Your task to perform on an android device: turn off notifications in google photos Image 0: 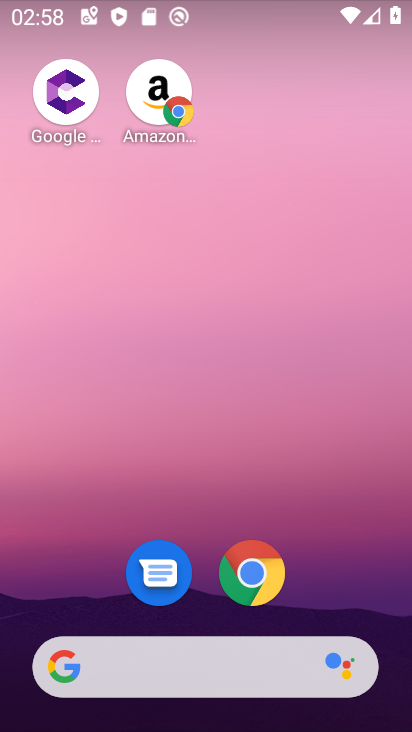
Step 0: drag from (323, 557) to (338, 15)
Your task to perform on an android device: turn off notifications in google photos Image 1: 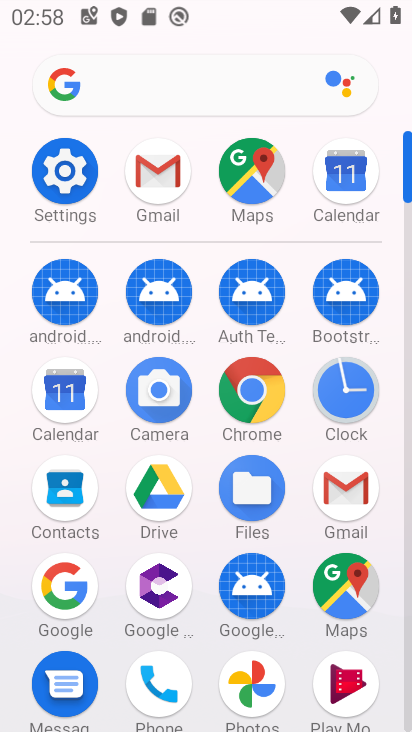
Step 1: drag from (206, 558) to (218, 234)
Your task to perform on an android device: turn off notifications in google photos Image 2: 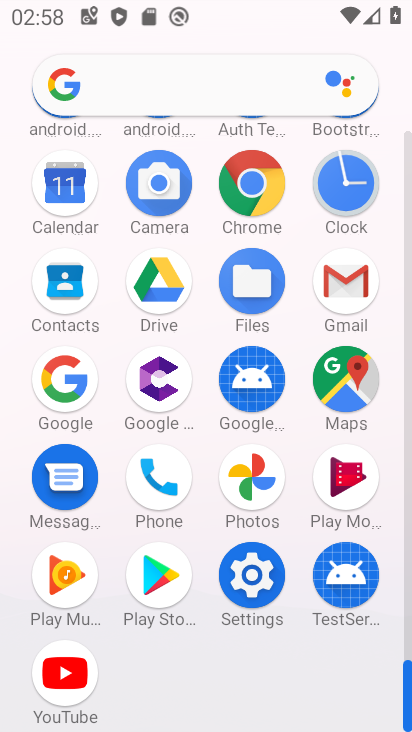
Step 2: click (253, 473)
Your task to perform on an android device: turn off notifications in google photos Image 3: 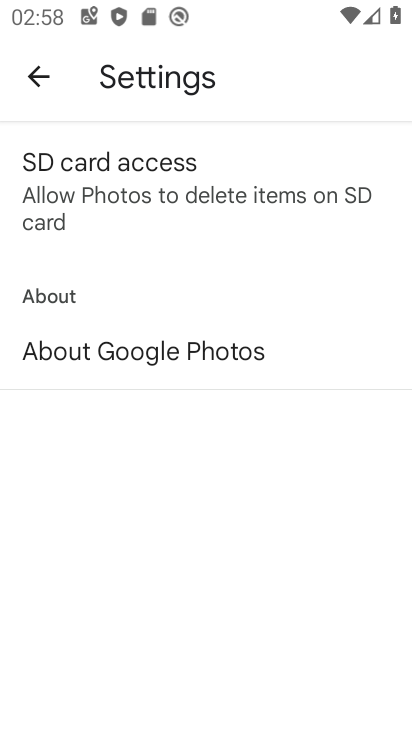
Step 3: press back button
Your task to perform on an android device: turn off notifications in google photos Image 4: 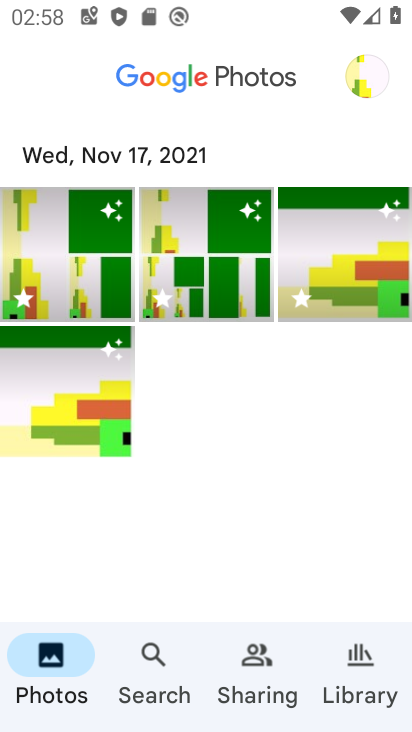
Step 4: click (375, 81)
Your task to perform on an android device: turn off notifications in google photos Image 5: 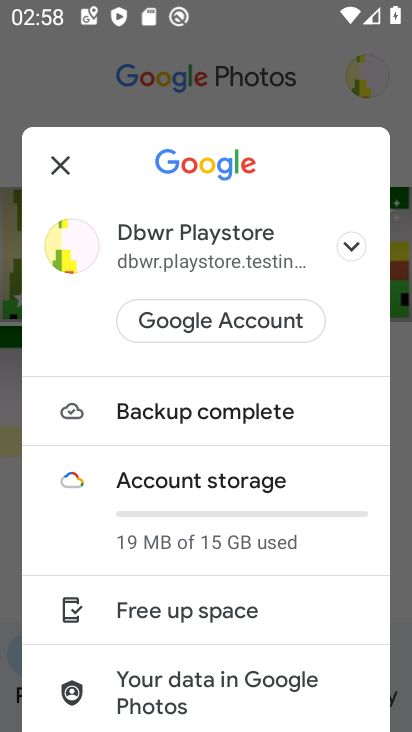
Step 5: drag from (276, 567) to (351, 307)
Your task to perform on an android device: turn off notifications in google photos Image 6: 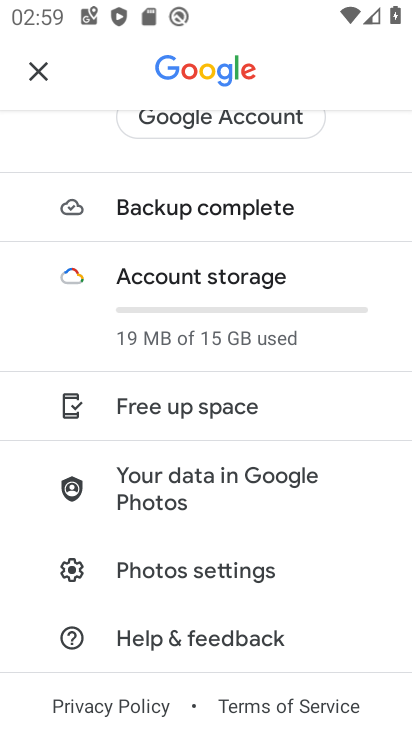
Step 6: click (221, 569)
Your task to perform on an android device: turn off notifications in google photos Image 7: 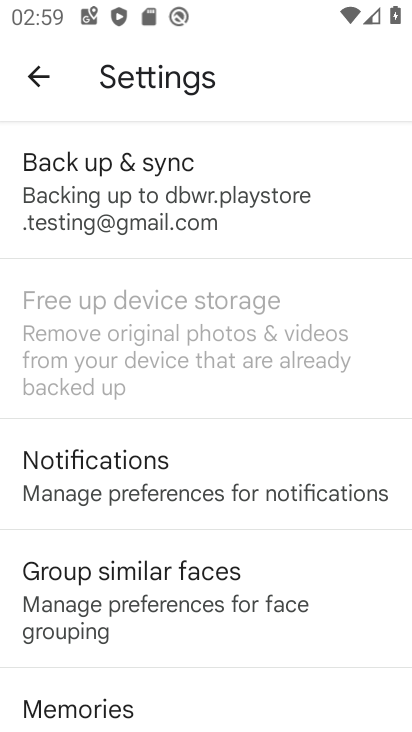
Step 7: click (195, 494)
Your task to perform on an android device: turn off notifications in google photos Image 8: 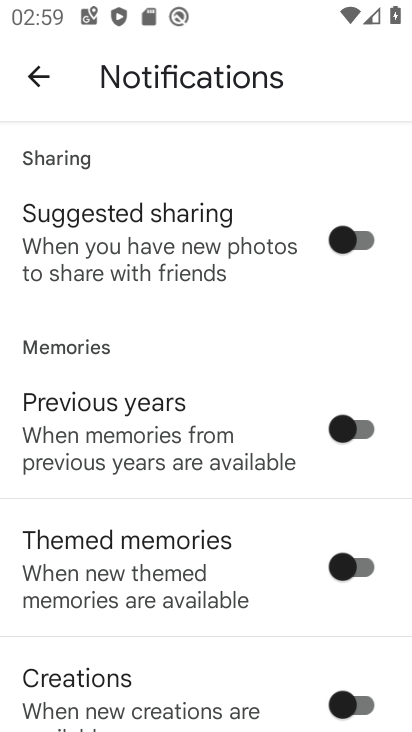
Step 8: drag from (145, 680) to (183, 524)
Your task to perform on an android device: turn off notifications in google photos Image 9: 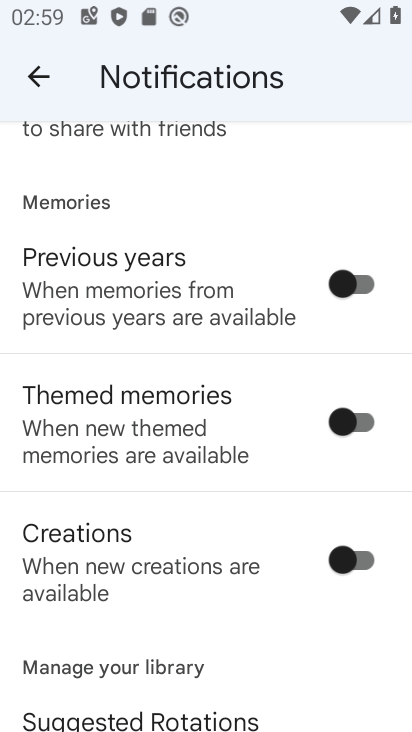
Step 9: drag from (160, 635) to (186, 520)
Your task to perform on an android device: turn off notifications in google photos Image 10: 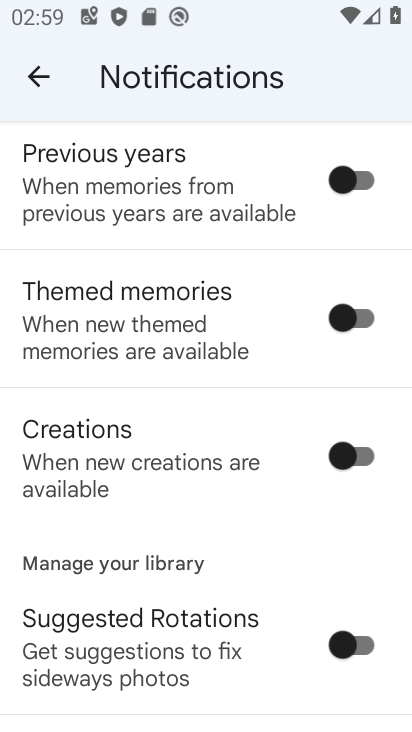
Step 10: drag from (205, 695) to (254, 493)
Your task to perform on an android device: turn off notifications in google photos Image 11: 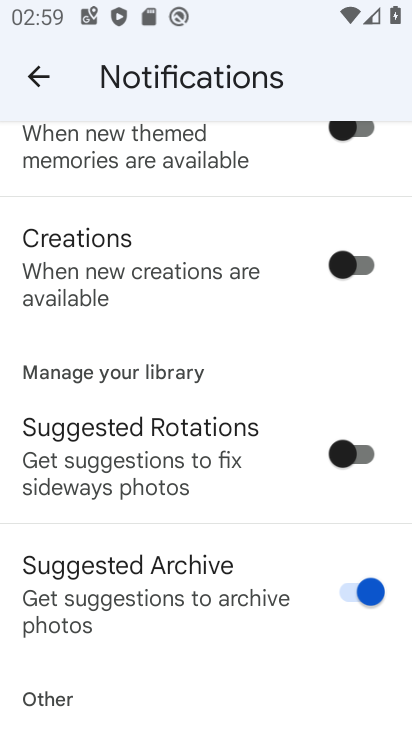
Step 11: drag from (183, 659) to (205, 458)
Your task to perform on an android device: turn off notifications in google photos Image 12: 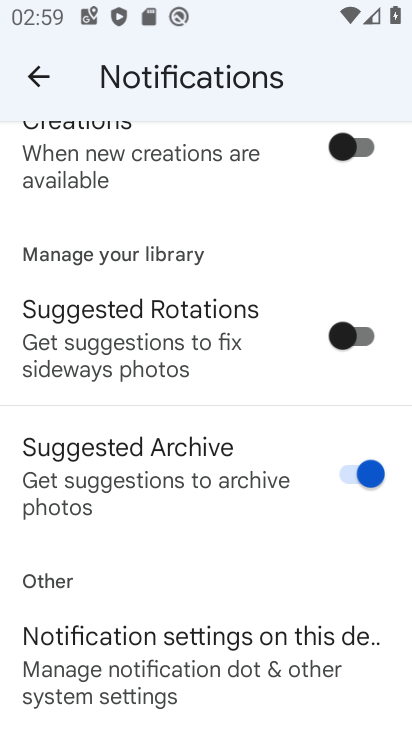
Step 12: click (163, 639)
Your task to perform on an android device: turn off notifications in google photos Image 13: 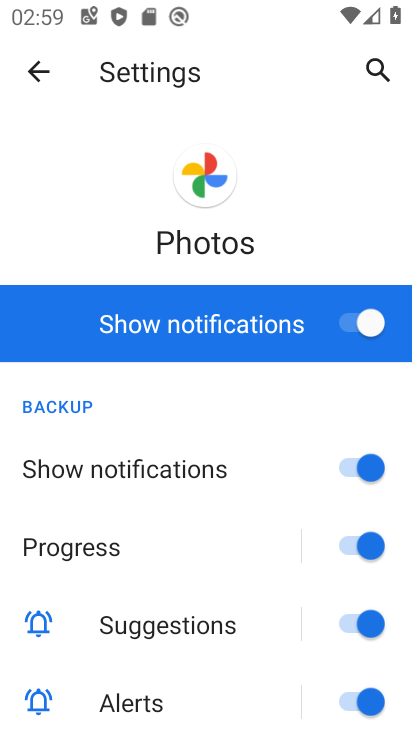
Step 13: click (377, 320)
Your task to perform on an android device: turn off notifications in google photos Image 14: 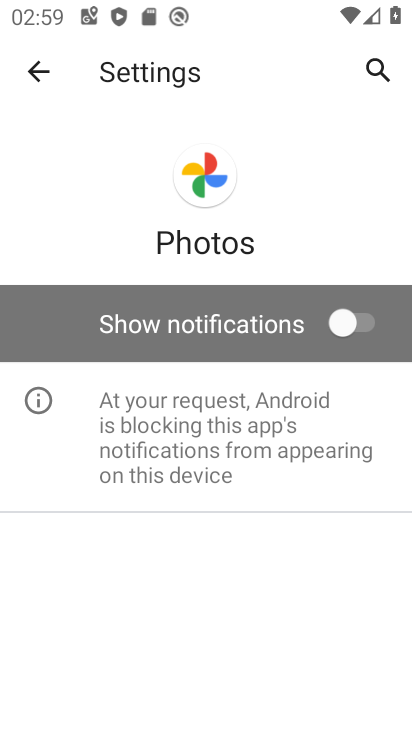
Step 14: task complete